Your task to perform on an android device: Search for Mexican restaurants on Maps Image 0: 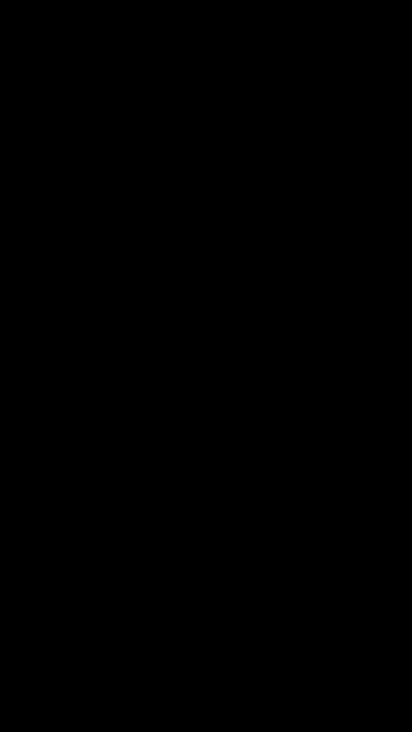
Step 0: press home button
Your task to perform on an android device: Search for Mexican restaurants on Maps Image 1: 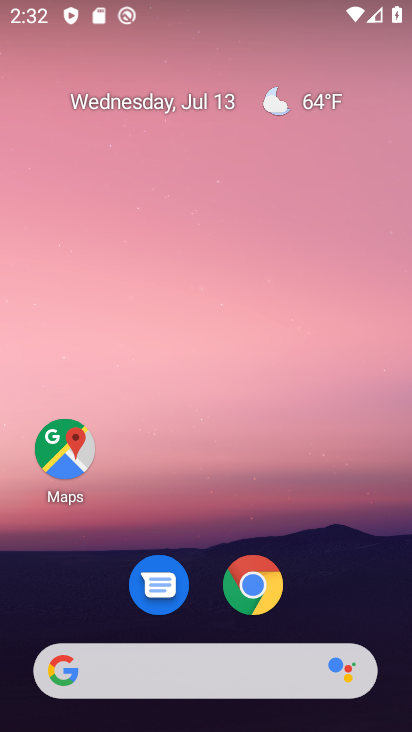
Step 1: click (61, 451)
Your task to perform on an android device: Search for Mexican restaurants on Maps Image 2: 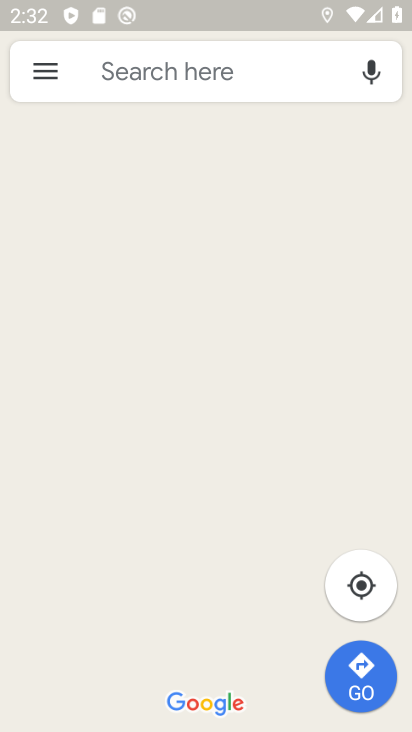
Step 2: click (196, 74)
Your task to perform on an android device: Search for Mexican restaurants on Maps Image 3: 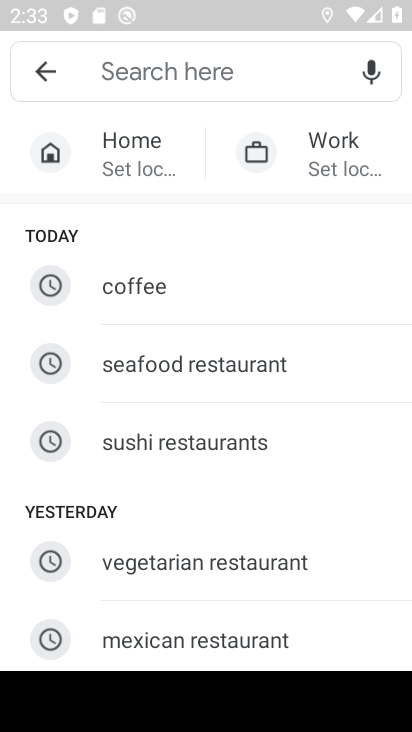
Step 3: click (238, 647)
Your task to perform on an android device: Search for Mexican restaurants on Maps Image 4: 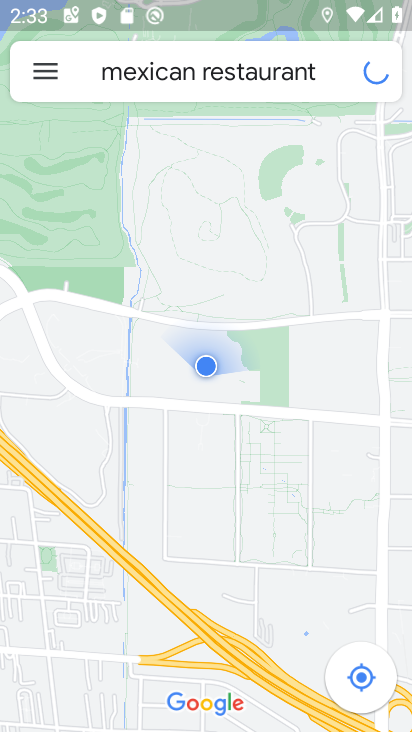
Step 4: click (241, 636)
Your task to perform on an android device: Search for Mexican restaurants on Maps Image 5: 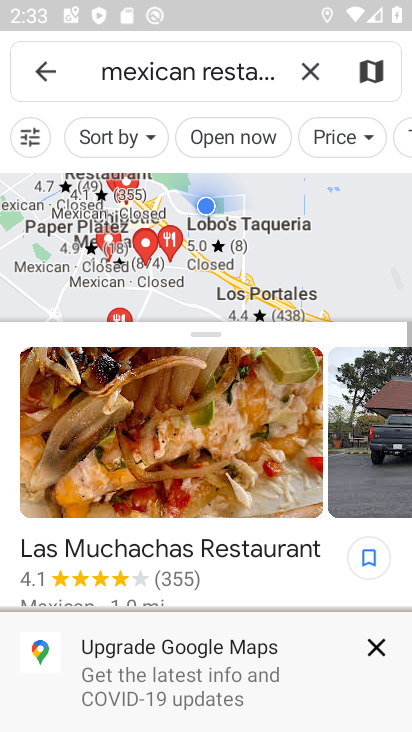
Step 5: drag from (186, 672) to (336, 161)
Your task to perform on an android device: Search for Mexican restaurants on Maps Image 6: 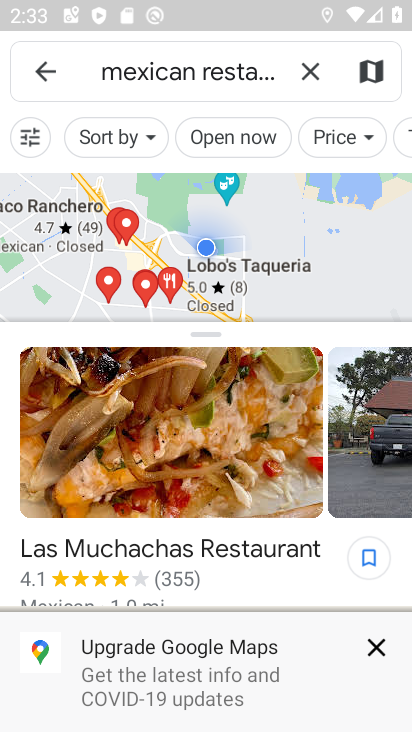
Step 6: click (370, 643)
Your task to perform on an android device: Search for Mexican restaurants on Maps Image 7: 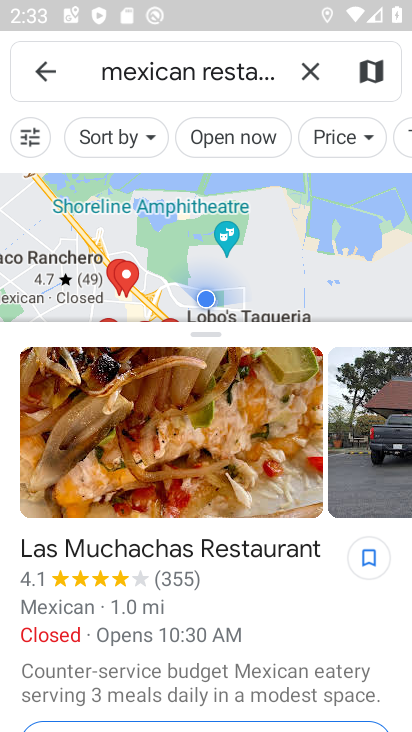
Step 7: task complete